Your task to perform on an android device: set the timer Image 0: 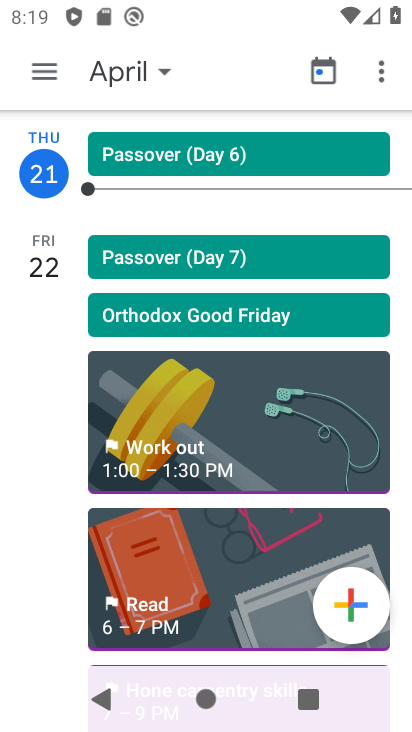
Step 0: press home button
Your task to perform on an android device: set the timer Image 1: 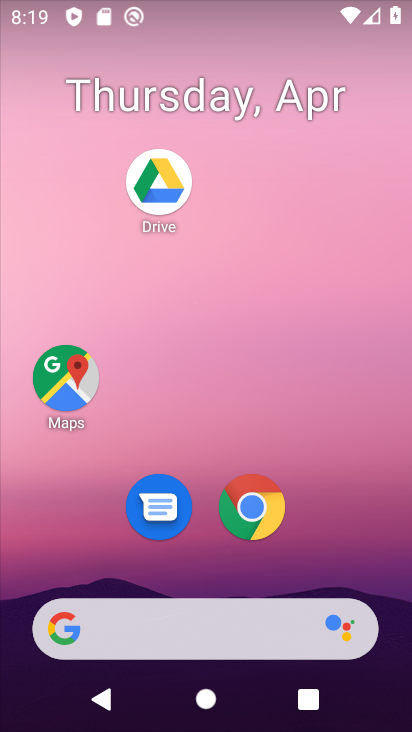
Step 1: drag from (352, 537) to (366, 191)
Your task to perform on an android device: set the timer Image 2: 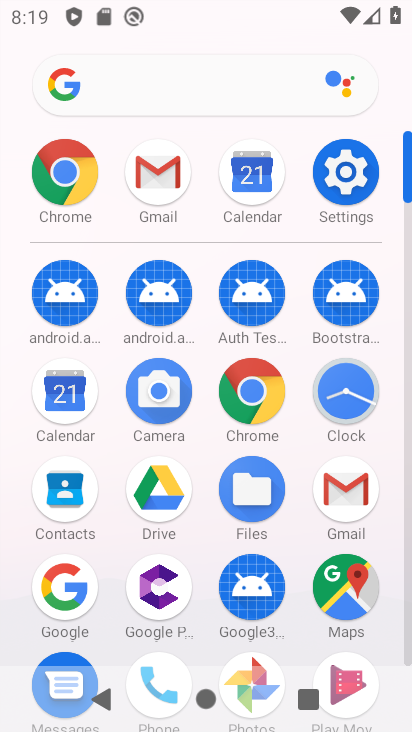
Step 2: click (350, 402)
Your task to perform on an android device: set the timer Image 3: 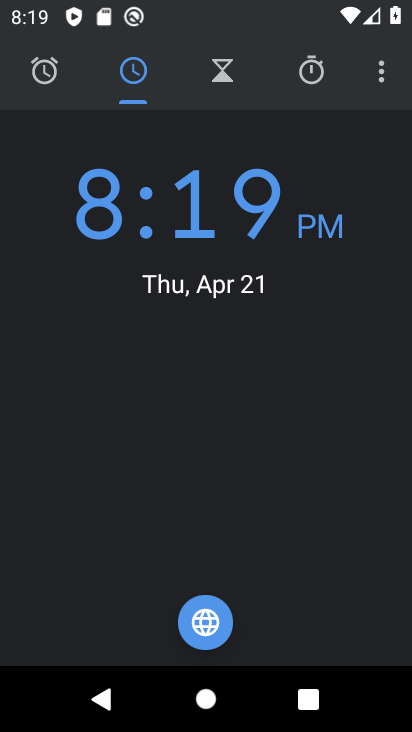
Step 3: click (227, 80)
Your task to perform on an android device: set the timer Image 4: 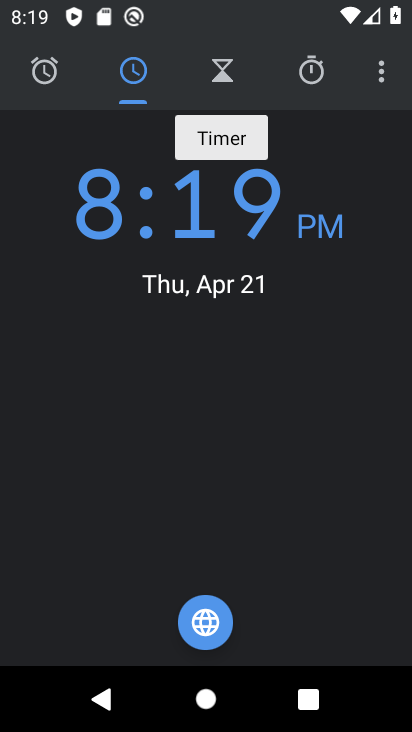
Step 4: click (227, 80)
Your task to perform on an android device: set the timer Image 5: 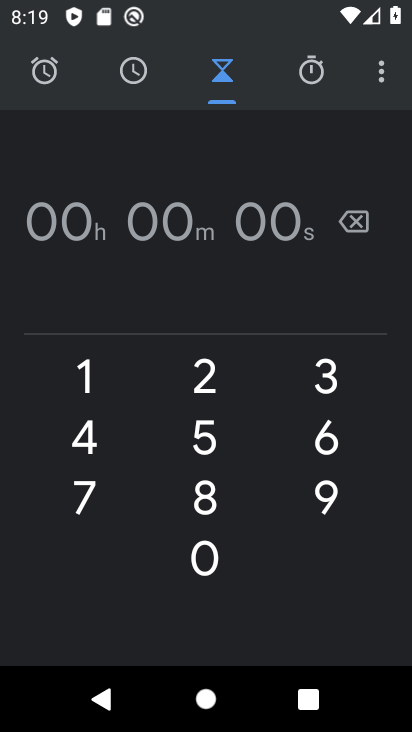
Step 5: click (216, 435)
Your task to perform on an android device: set the timer Image 6: 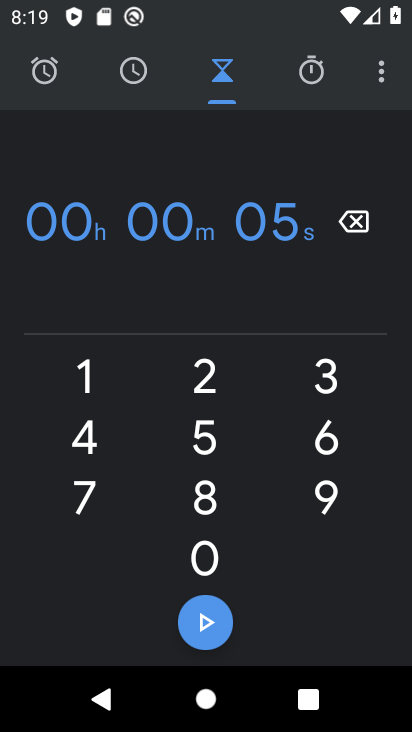
Step 6: task complete